Your task to perform on an android device: Open calendar and show me the second week of next month Image 0: 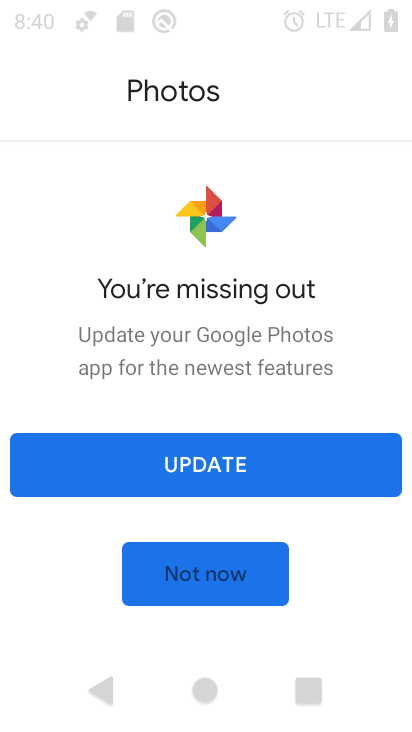
Step 0: press home button
Your task to perform on an android device: Open calendar and show me the second week of next month Image 1: 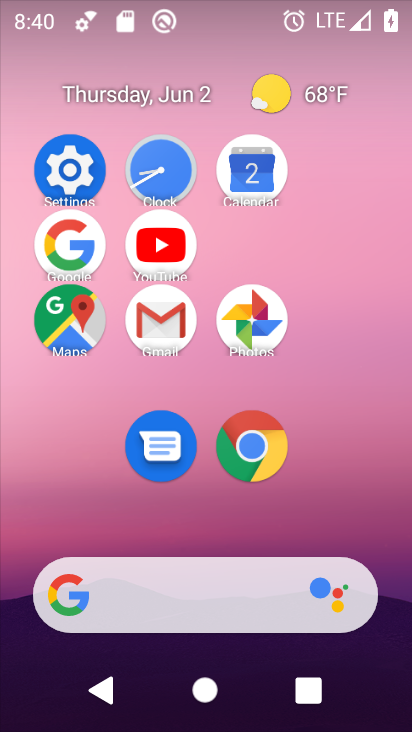
Step 1: click (271, 174)
Your task to perform on an android device: Open calendar and show me the second week of next month Image 2: 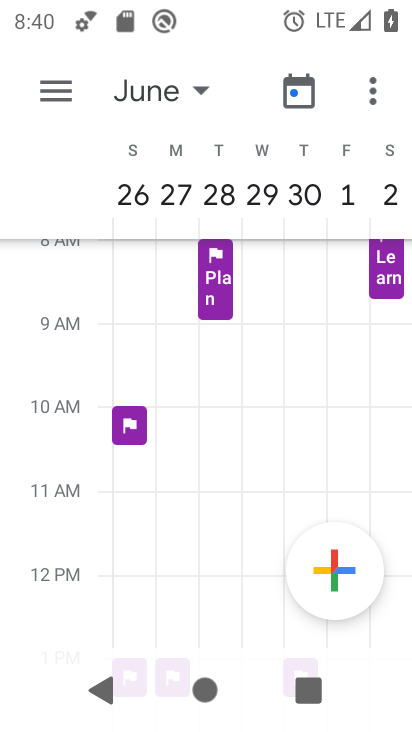
Step 2: click (166, 86)
Your task to perform on an android device: Open calendar and show me the second week of next month Image 3: 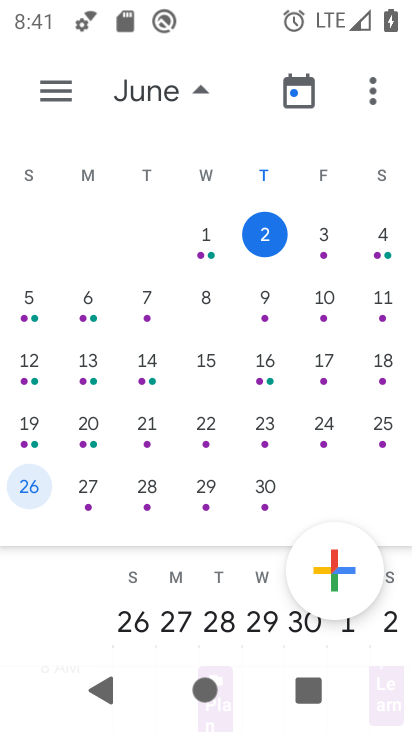
Step 3: drag from (390, 373) to (22, 373)
Your task to perform on an android device: Open calendar and show me the second week of next month Image 4: 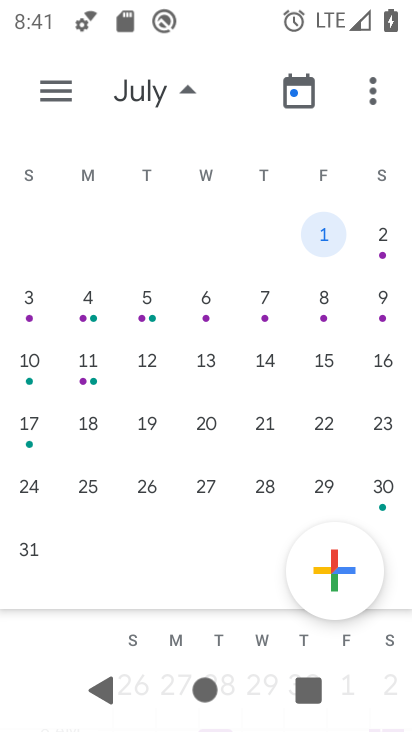
Step 4: click (54, 88)
Your task to perform on an android device: Open calendar and show me the second week of next month Image 5: 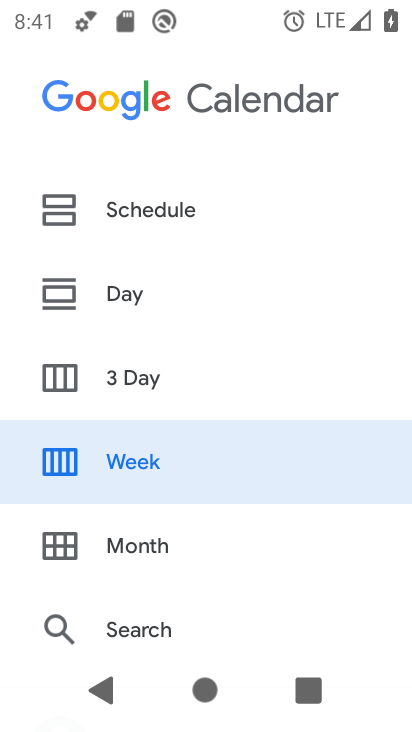
Step 5: click (174, 464)
Your task to perform on an android device: Open calendar and show me the second week of next month Image 6: 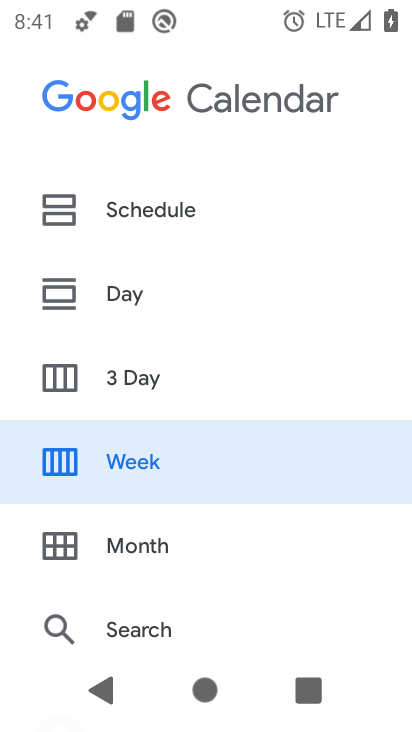
Step 6: click (245, 464)
Your task to perform on an android device: Open calendar and show me the second week of next month Image 7: 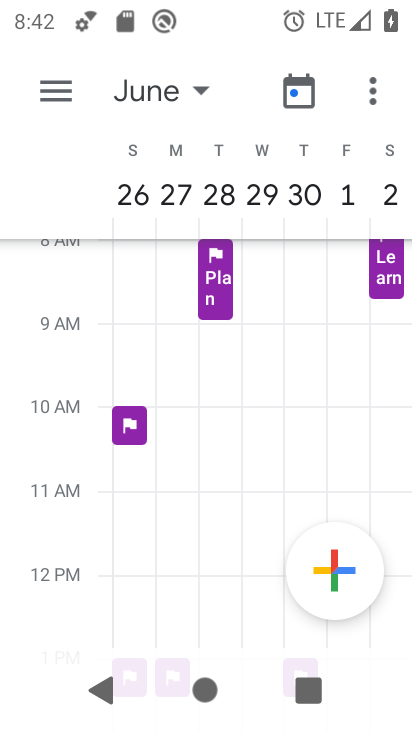
Step 7: click (76, 92)
Your task to perform on an android device: Open calendar and show me the second week of next month Image 8: 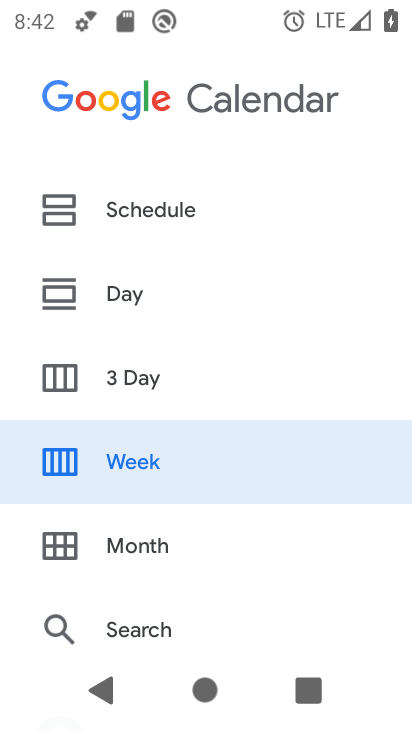
Step 8: click (190, 476)
Your task to perform on an android device: Open calendar and show me the second week of next month Image 9: 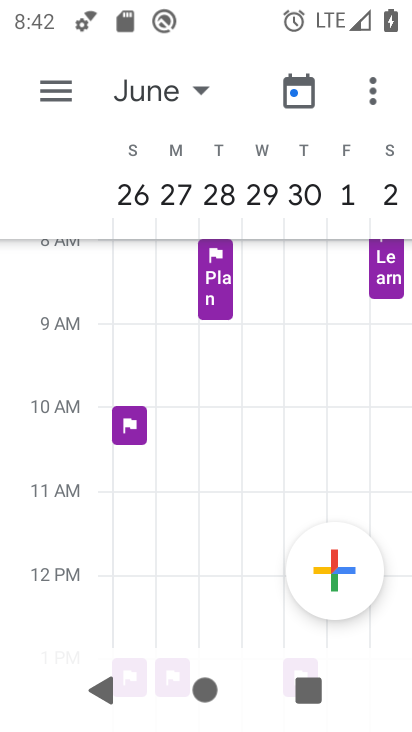
Step 9: task complete